Your task to perform on an android device: toggle show notifications on the lock screen Image 0: 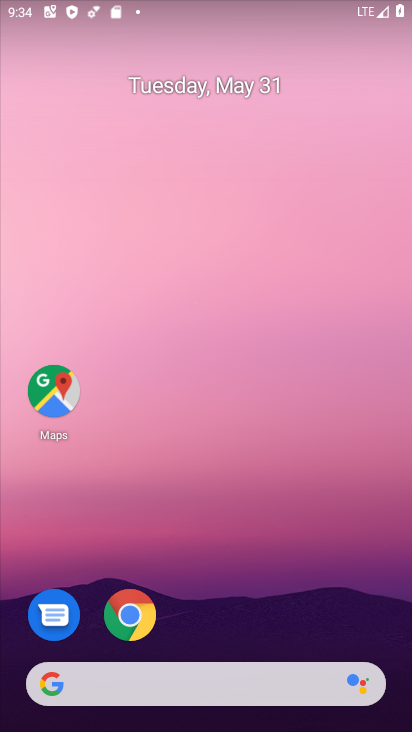
Step 0: drag from (351, 489) to (336, 155)
Your task to perform on an android device: toggle show notifications on the lock screen Image 1: 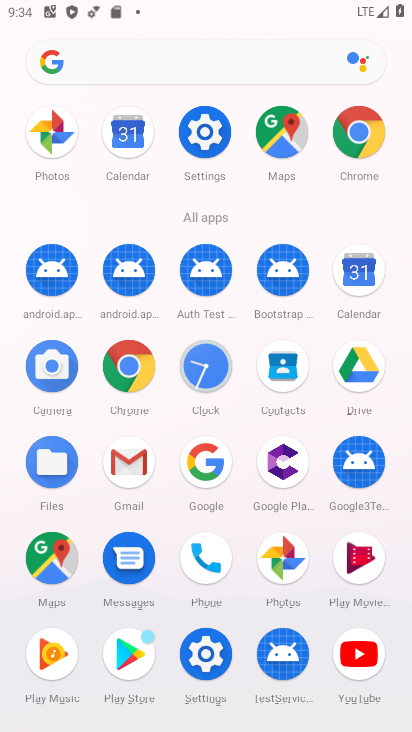
Step 1: click (215, 124)
Your task to perform on an android device: toggle show notifications on the lock screen Image 2: 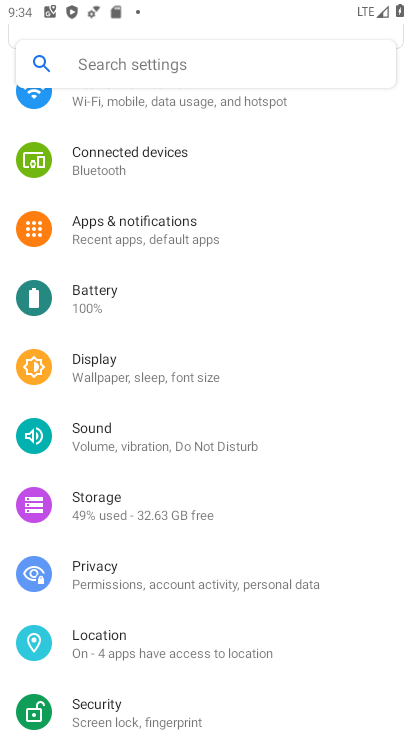
Step 2: click (116, 226)
Your task to perform on an android device: toggle show notifications on the lock screen Image 3: 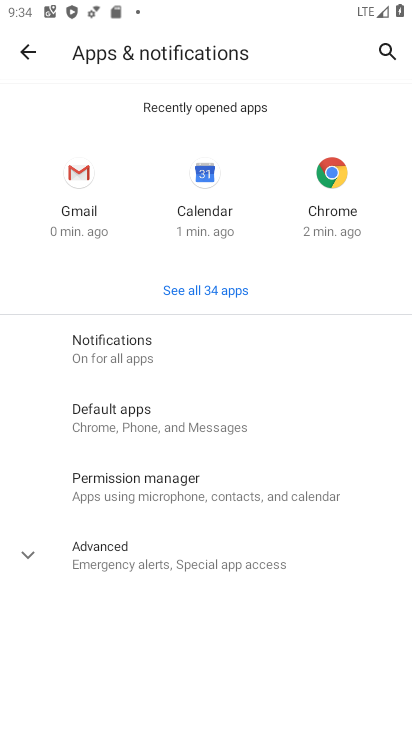
Step 3: click (95, 373)
Your task to perform on an android device: toggle show notifications on the lock screen Image 4: 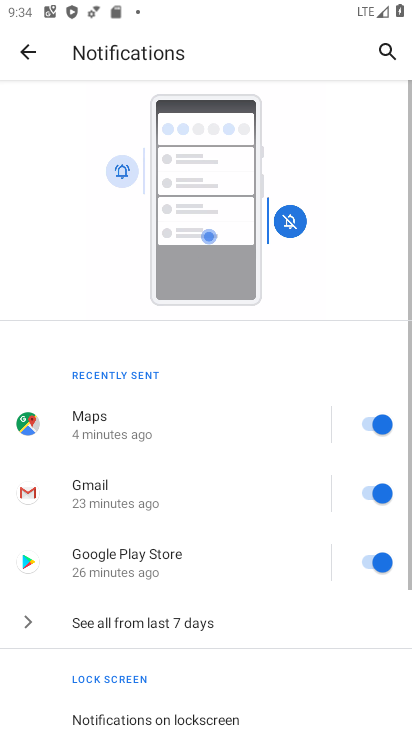
Step 4: drag from (92, 632) to (149, 205)
Your task to perform on an android device: toggle show notifications on the lock screen Image 5: 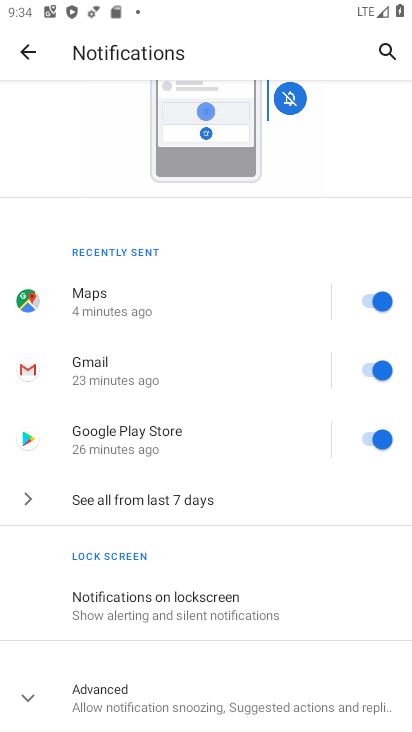
Step 5: click (105, 593)
Your task to perform on an android device: toggle show notifications on the lock screen Image 6: 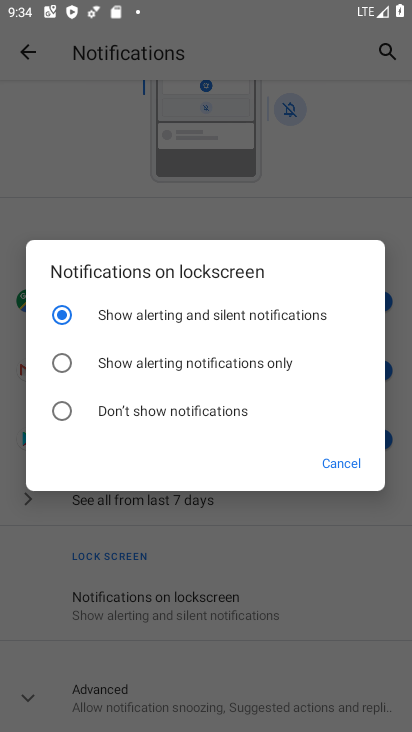
Step 6: click (53, 372)
Your task to perform on an android device: toggle show notifications on the lock screen Image 7: 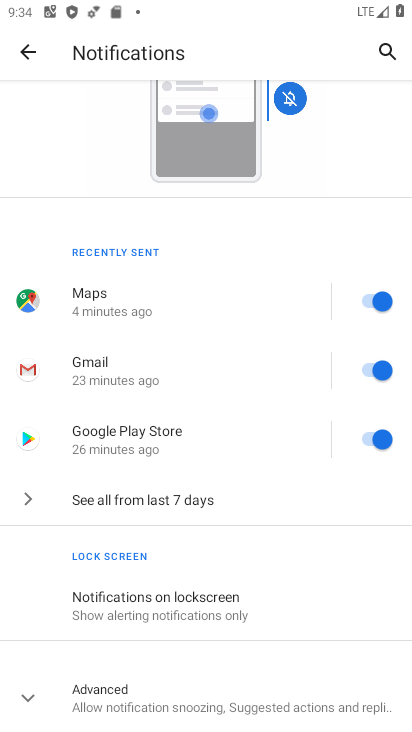
Step 7: task complete